Your task to perform on an android device: search for starred emails in the gmail app Image 0: 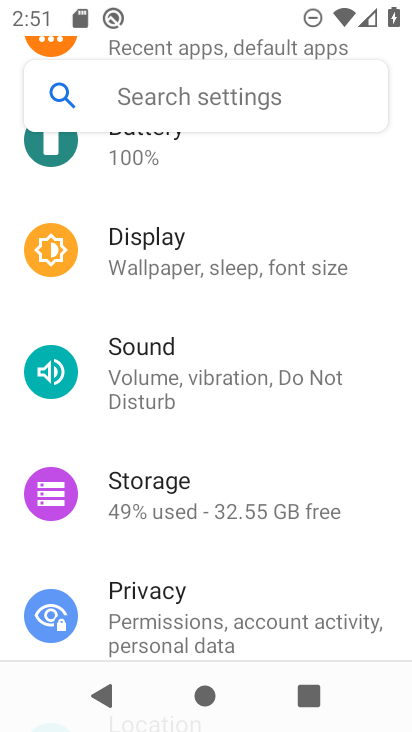
Step 0: press home button
Your task to perform on an android device: search for starred emails in the gmail app Image 1: 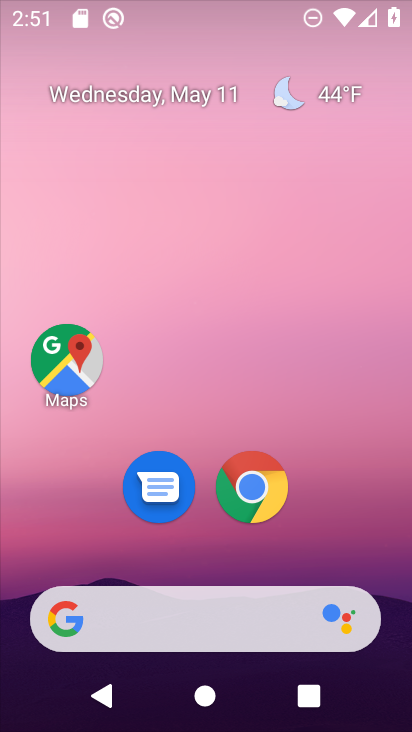
Step 1: drag from (140, 574) to (281, 64)
Your task to perform on an android device: search for starred emails in the gmail app Image 2: 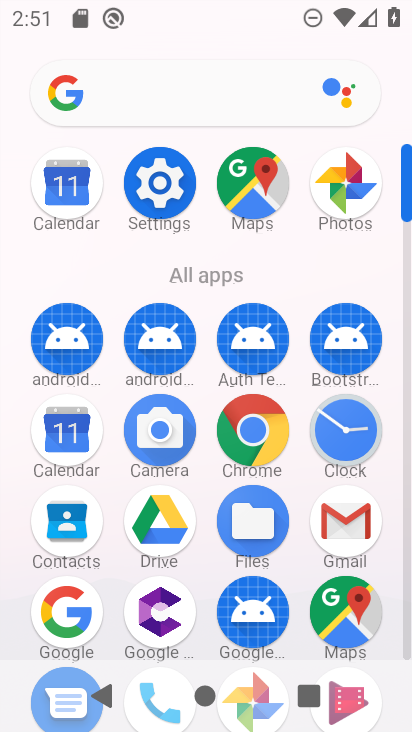
Step 2: click (362, 514)
Your task to perform on an android device: search for starred emails in the gmail app Image 3: 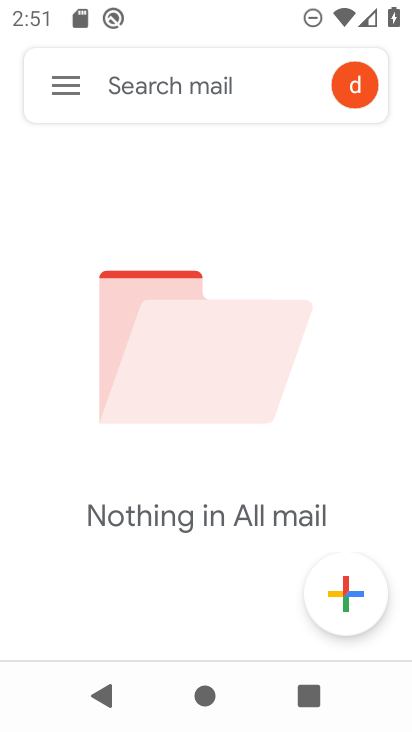
Step 3: click (67, 83)
Your task to perform on an android device: search for starred emails in the gmail app Image 4: 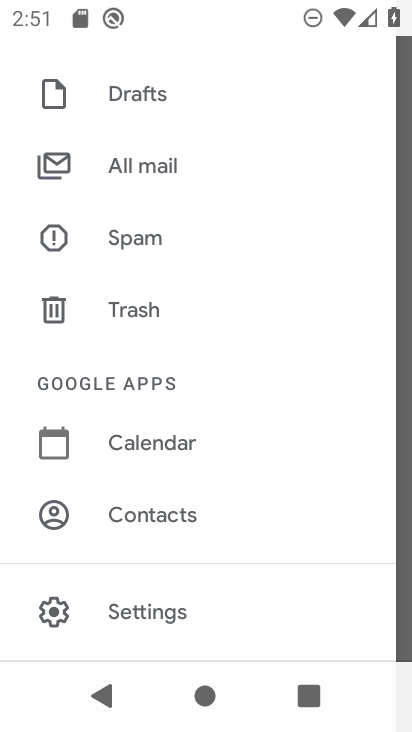
Step 4: drag from (180, 174) to (181, 614)
Your task to perform on an android device: search for starred emails in the gmail app Image 5: 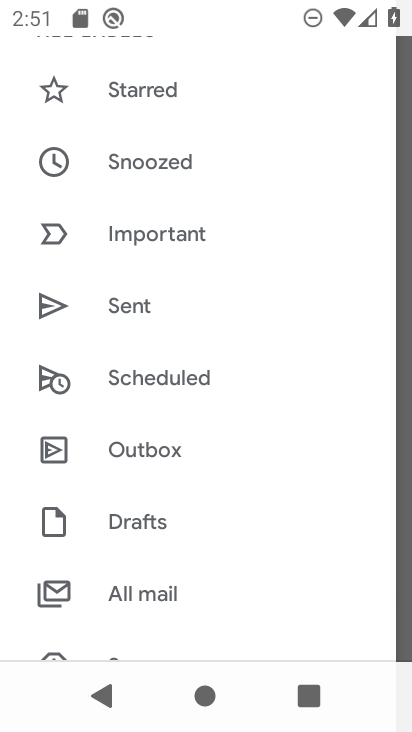
Step 5: click (139, 74)
Your task to perform on an android device: search for starred emails in the gmail app Image 6: 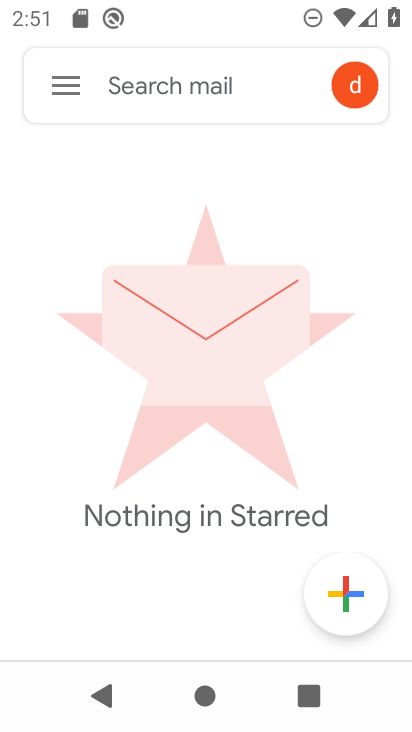
Step 6: task complete